Your task to perform on an android device: open chrome privacy settings Image 0: 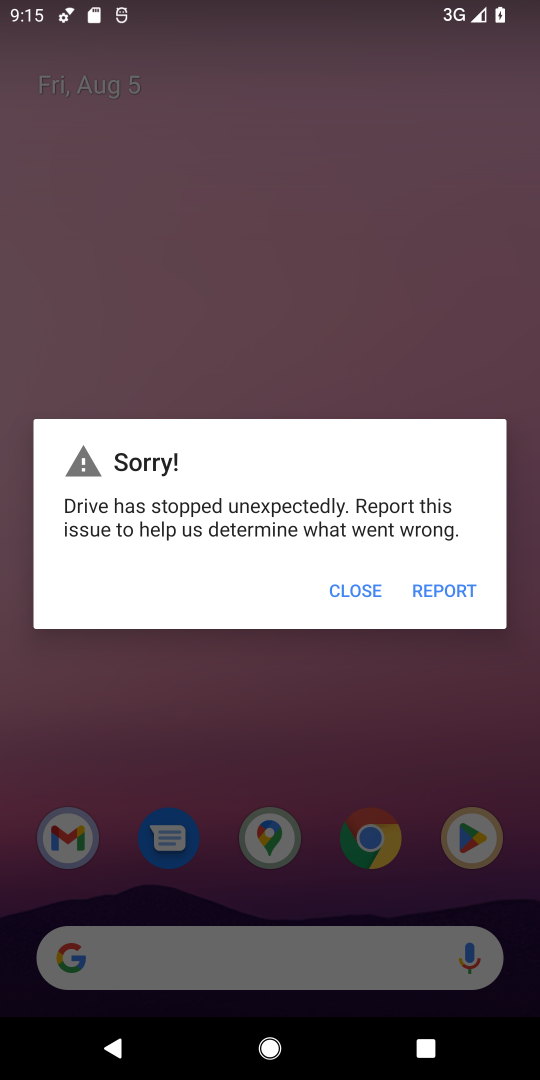
Step 0: press home button
Your task to perform on an android device: open chrome privacy settings Image 1: 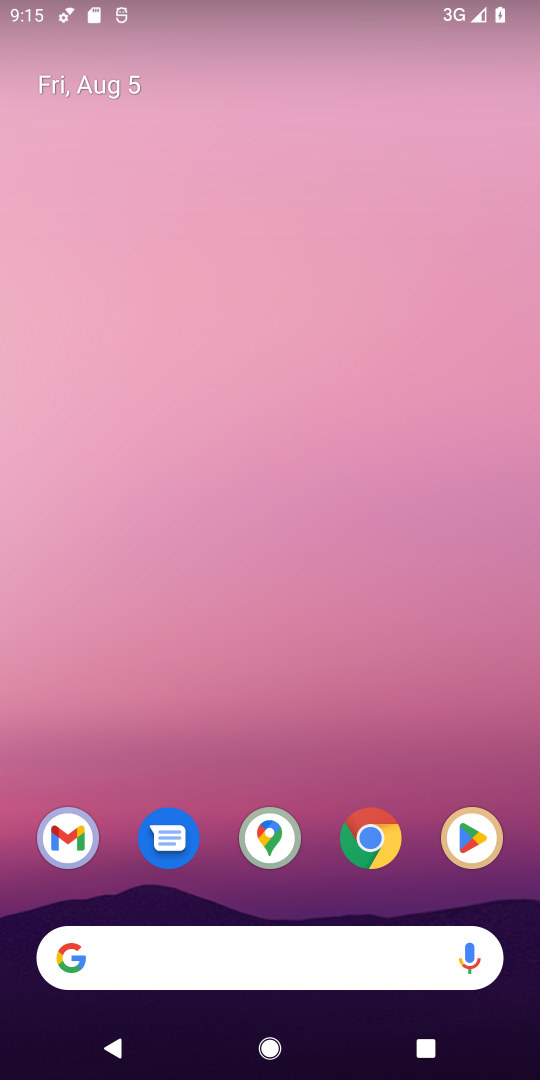
Step 1: click (356, 846)
Your task to perform on an android device: open chrome privacy settings Image 2: 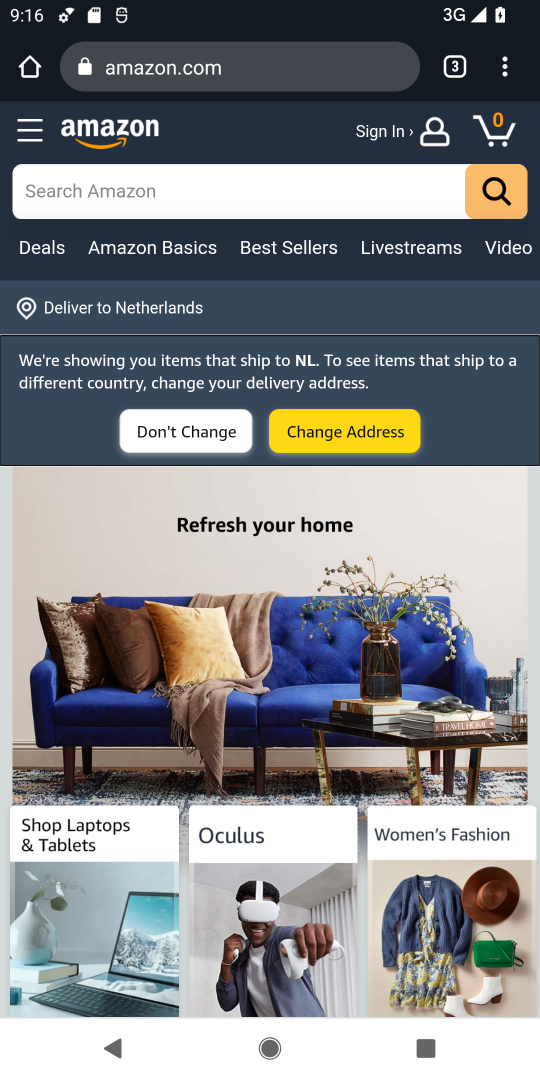
Step 2: click (505, 66)
Your task to perform on an android device: open chrome privacy settings Image 3: 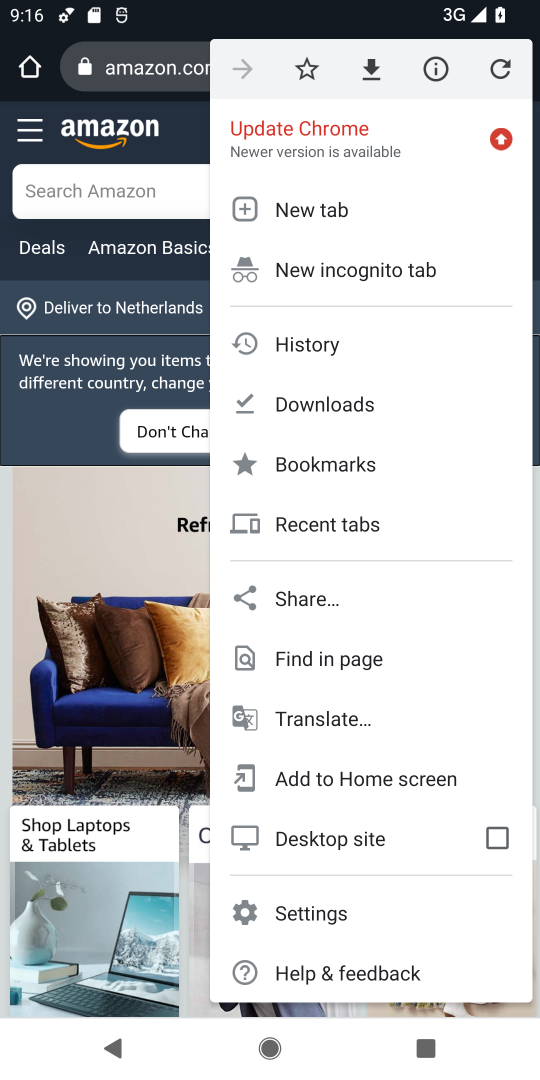
Step 3: click (303, 907)
Your task to perform on an android device: open chrome privacy settings Image 4: 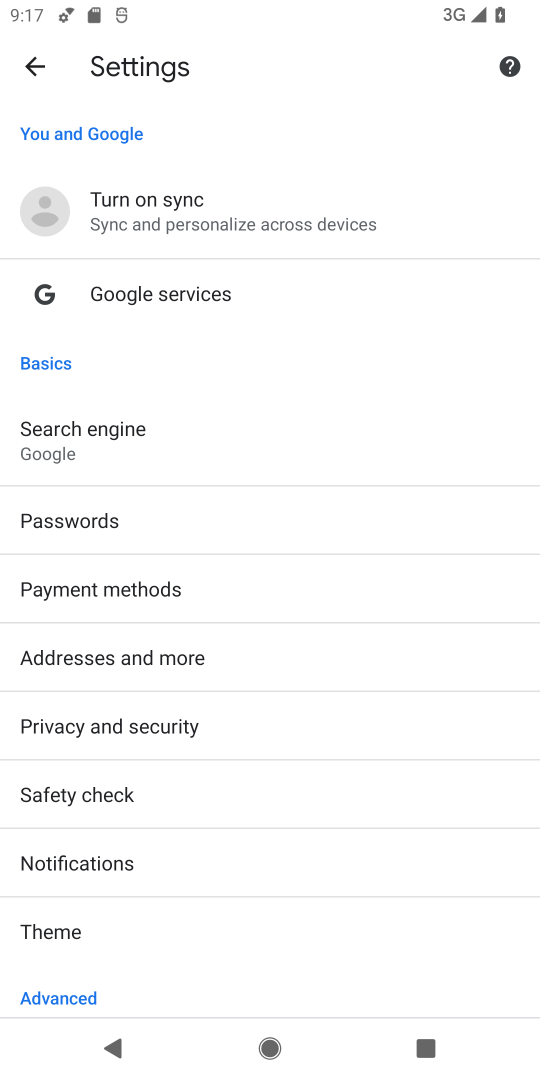
Step 4: click (107, 727)
Your task to perform on an android device: open chrome privacy settings Image 5: 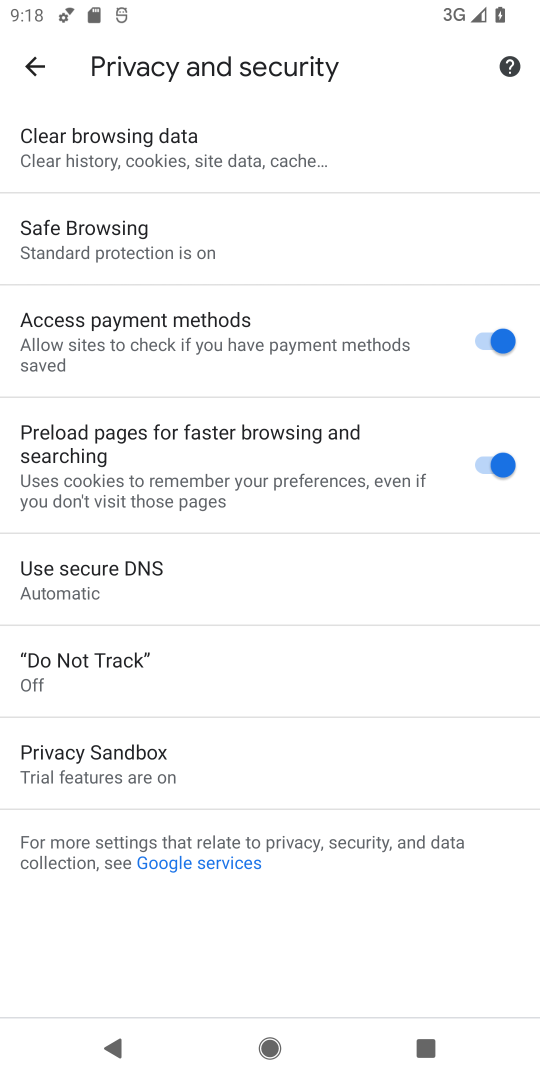
Step 5: task complete